Your task to perform on an android device: open a bookmark in the chrome app Image 0: 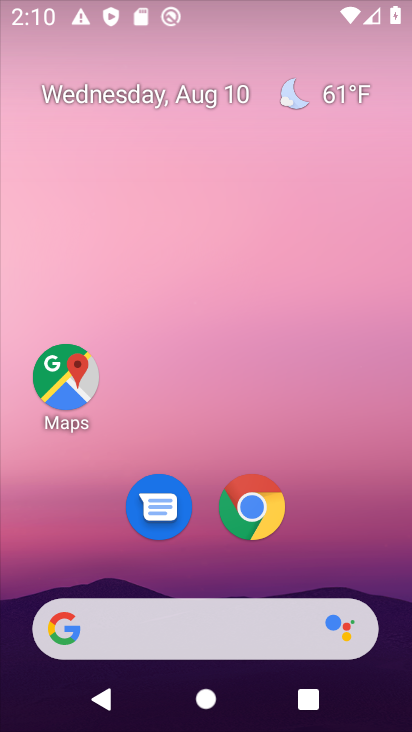
Step 0: drag from (355, 524) to (272, 4)
Your task to perform on an android device: open a bookmark in the chrome app Image 1: 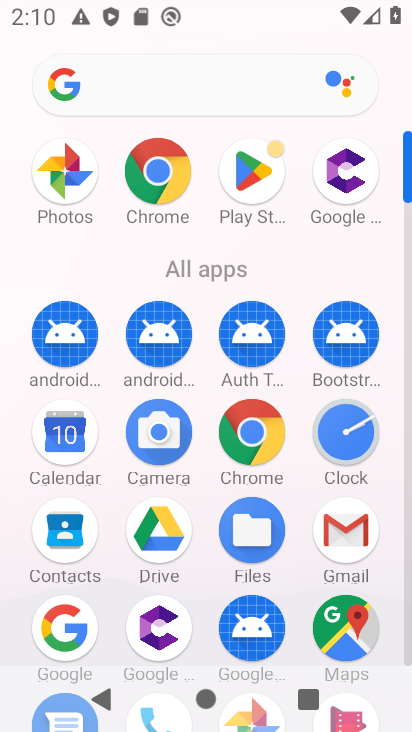
Step 1: click (256, 432)
Your task to perform on an android device: open a bookmark in the chrome app Image 2: 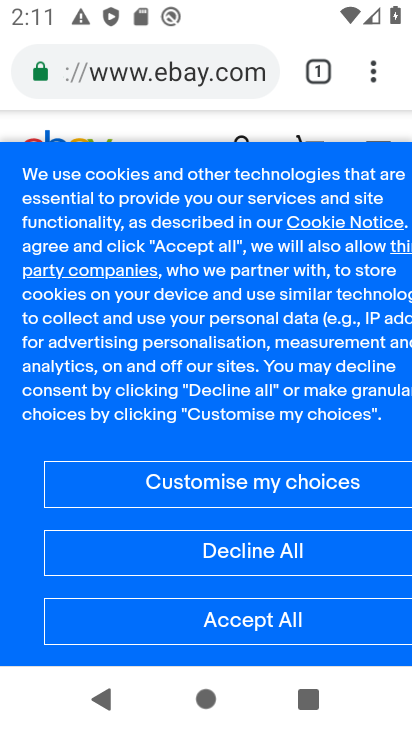
Step 2: drag from (377, 76) to (133, 267)
Your task to perform on an android device: open a bookmark in the chrome app Image 3: 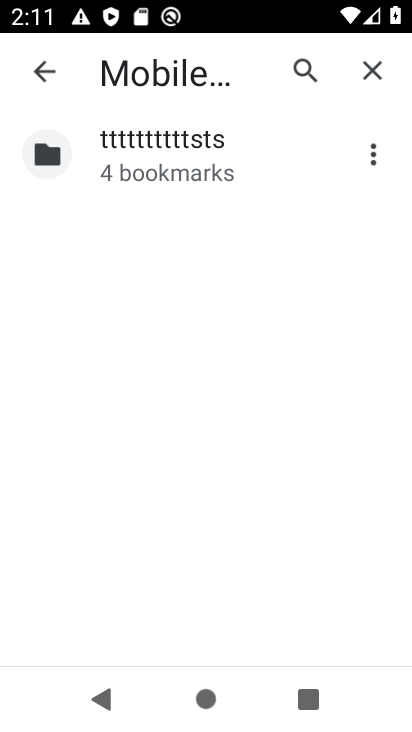
Step 3: click (231, 168)
Your task to perform on an android device: open a bookmark in the chrome app Image 4: 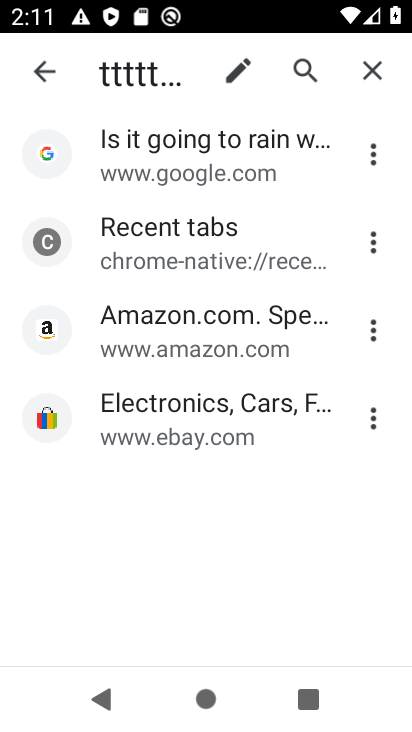
Step 4: click (230, 153)
Your task to perform on an android device: open a bookmark in the chrome app Image 5: 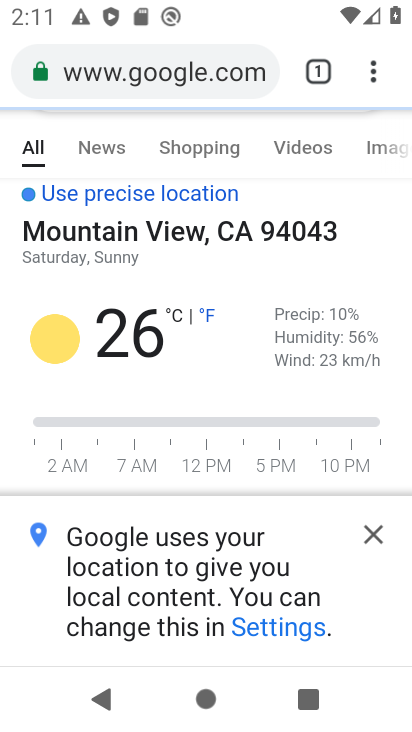
Step 5: task complete